Your task to perform on an android device: When is my next meeting? Image 0: 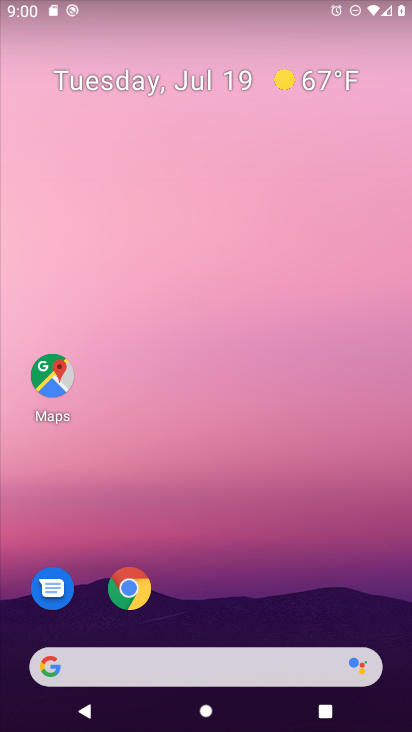
Step 0: drag from (363, 575) to (379, 130)
Your task to perform on an android device: When is my next meeting? Image 1: 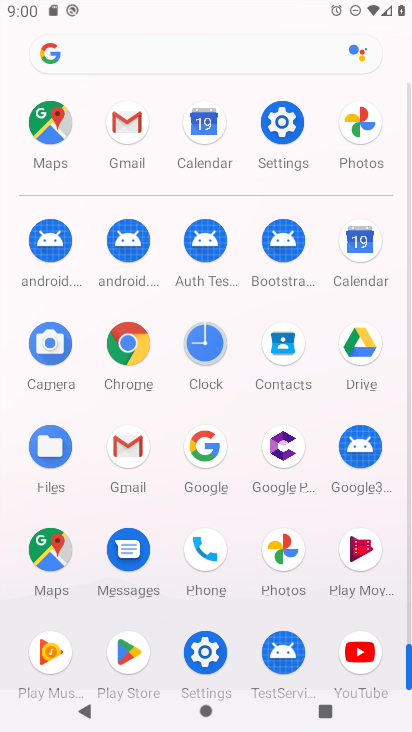
Step 1: click (363, 239)
Your task to perform on an android device: When is my next meeting? Image 2: 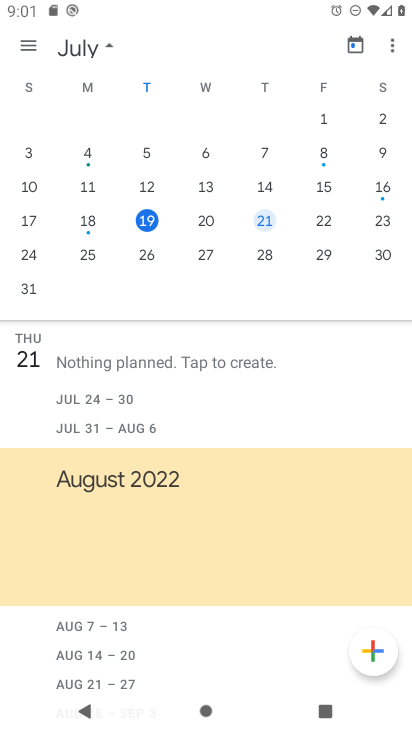
Step 2: task complete